Your task to perform on an android device: What's the price of the Hisense TV? Image 0: 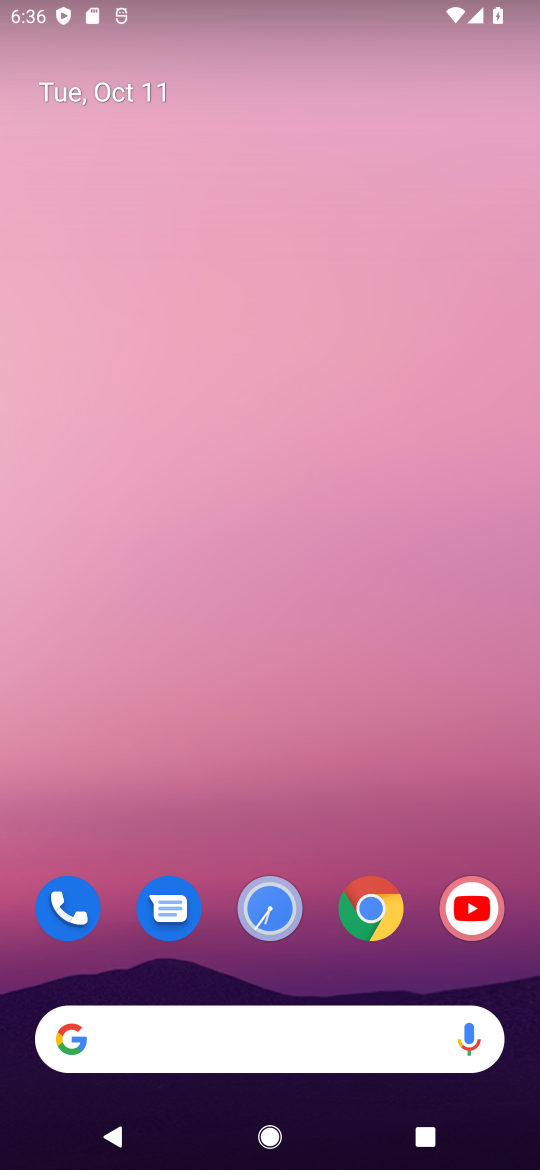
Step 0: click (286, 1034)
Your task to perform on an android device: What's the price of the Hisense TV? Image 1: 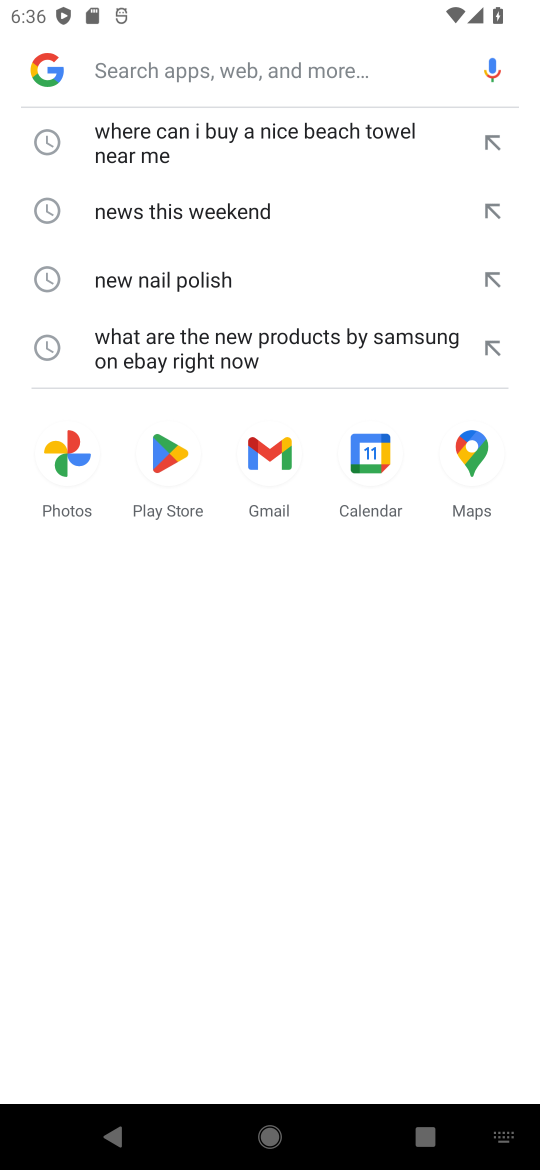
Step 1: type "What's the price of the Hisense TV?"
Your task to perform on an android device: What's the price of the Hisense TV? Image 2: 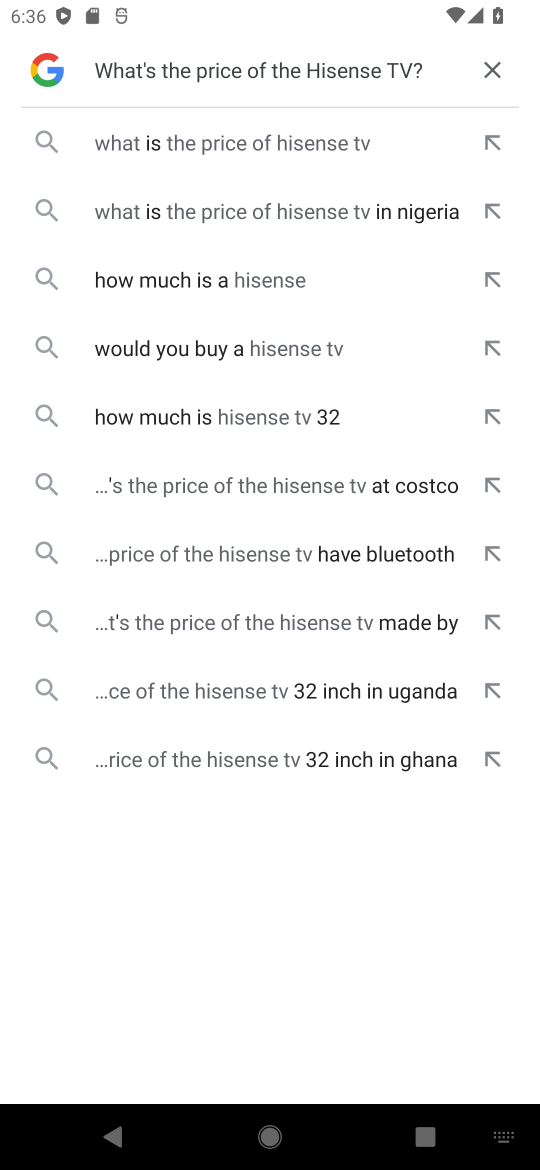
Step 2: click (239, 136)
Your task to perform on an android device: What's the price of the Hisense TV? Image 3: 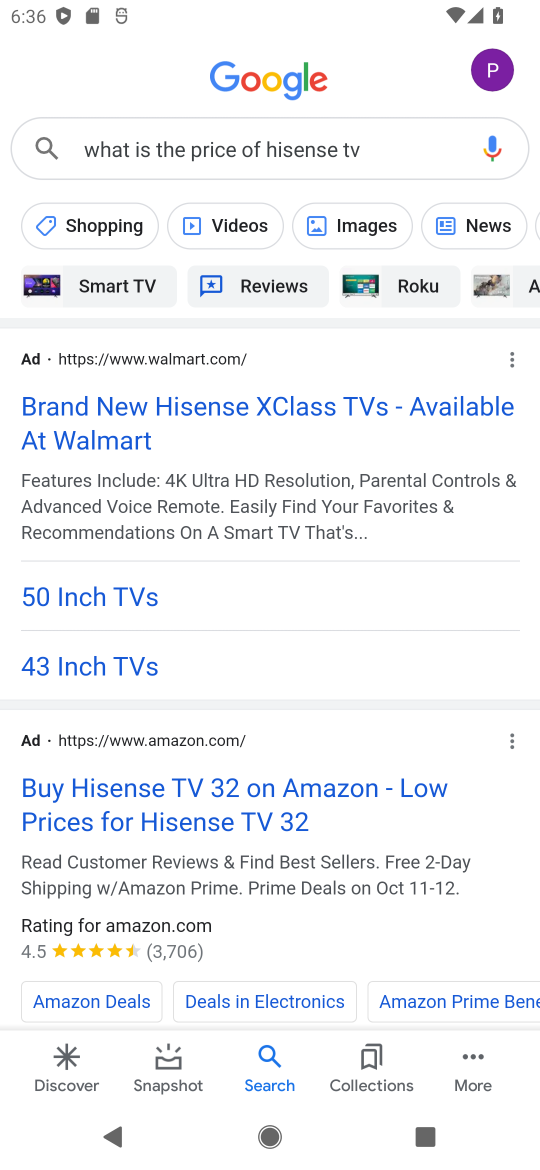
Step 3: click (107, 403)
Your task to perform on an android device: What's the price of the Hisense TV? Image 4: 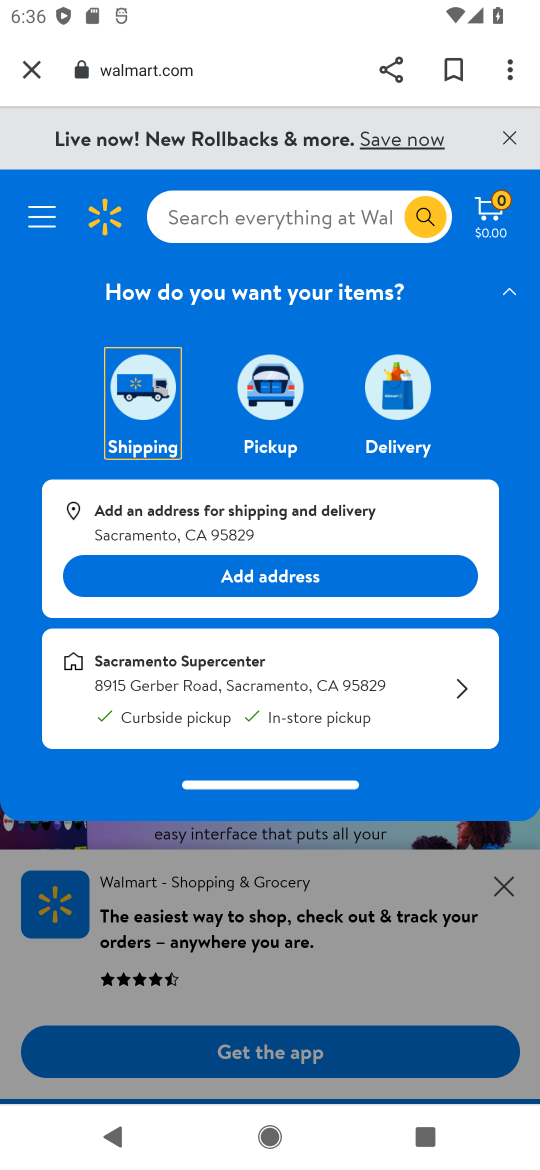
Step 4: click (507, 887)
Your task to perform on an android device: What's the price of the Hisense TV? Image 5: 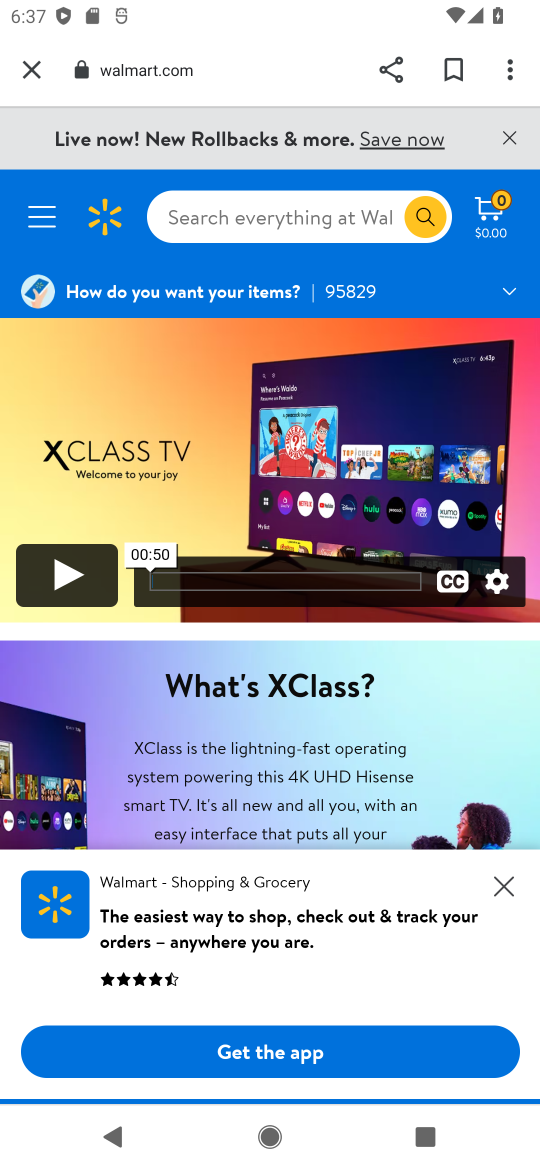
Step 5: click (503, 876)
Your task to perform on an android device: What's the price of the Hisense TV? Image 6: 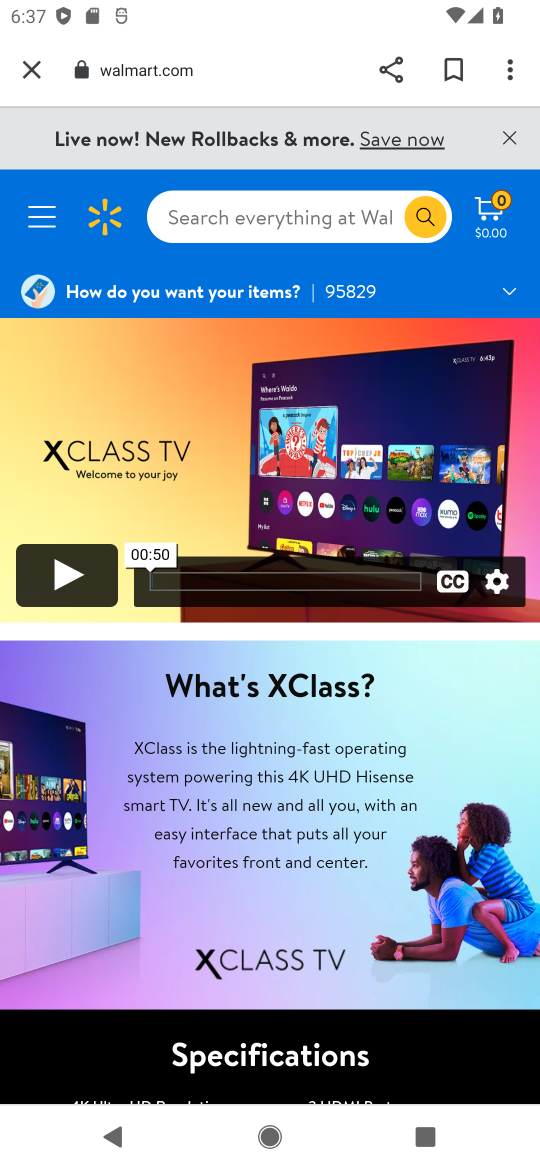
Step 6: task complete